Your task to perform on an android device: Go to Yahoo.com Image 0: 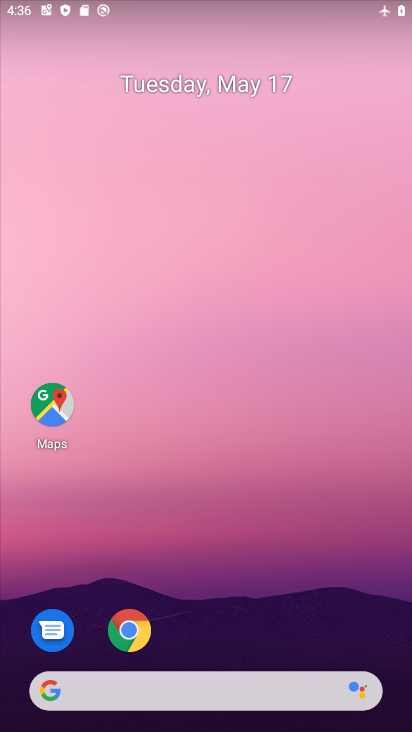
Step 0: click (131, 630)
Your task to perform on an android device: Go to Yahoo.com Image 1: 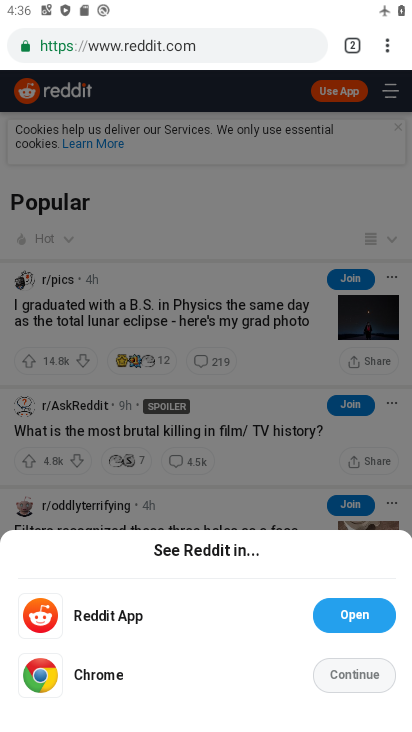
Step 1: click (388, 52)
Your task to perform on an android device: Go to Yahoo.com Image 2: 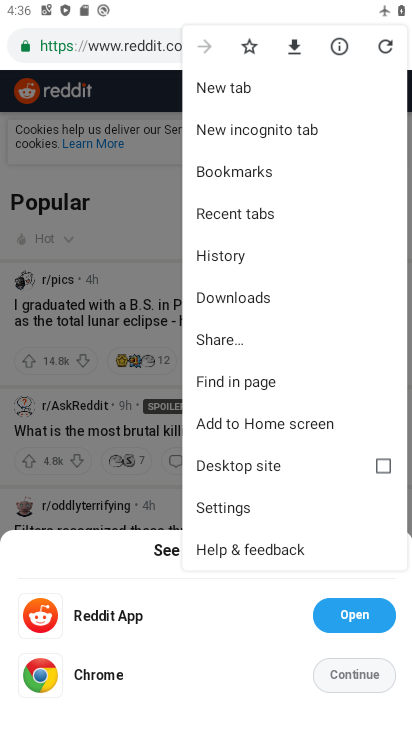
Step 2: click (224, 88)
Your task to perform on an android device: Go to Yahoo.com Image 3: 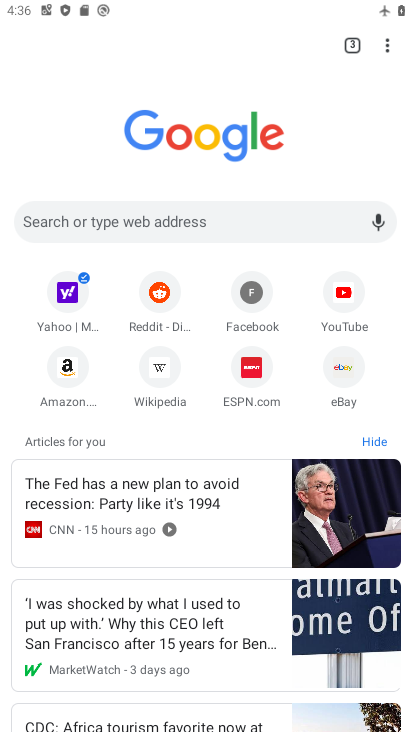
Step 3: click (67, 295)
Your task to perform on an android device: Go to Yahoo.com Image 4: 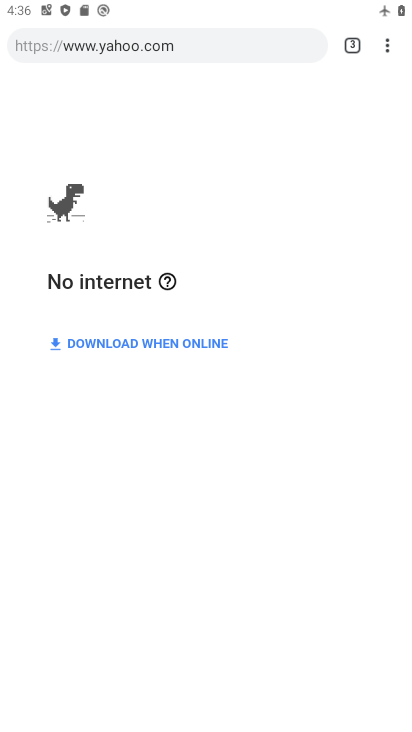
Step 4: task complete